Your task to perform on an android device: Go to calendar. Show me events next week Image 0: 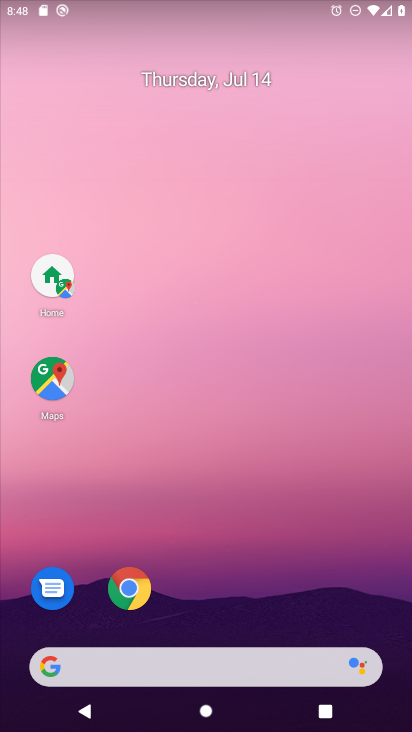
Step 0: drag from (47, 725) to (317, 17)
Your task to perform on an android device: Go to calendar. Show me events next week Image 1: 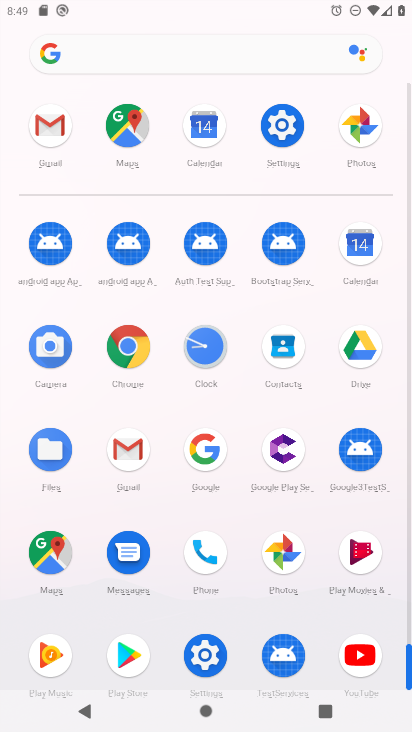
Step 1: click (354, 240)
Your task to perform on an android device: Go to calendar. Show me events next week Image 2: 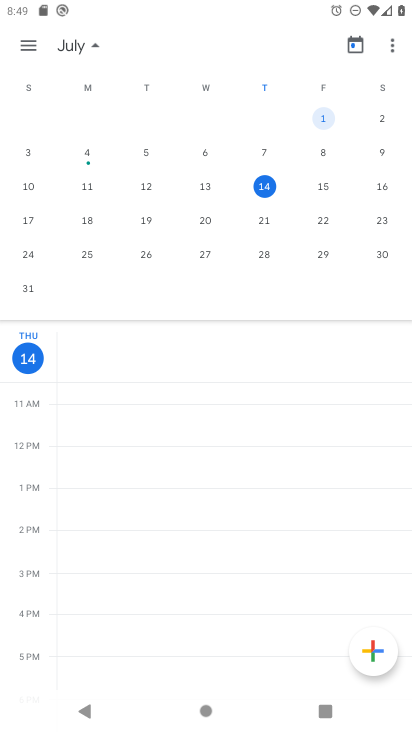
Step 2: click (24, 46)
Your task to perform on an android device: Go to calendar. Show me events next week Image 3: 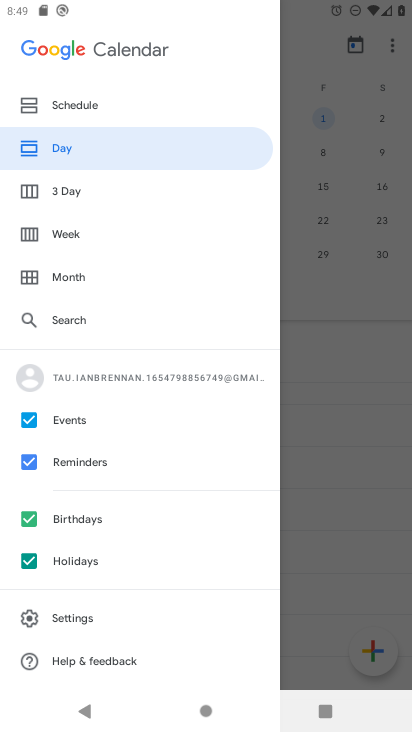
Step 3: click (364, 311)
Your task to perform on an android device: Go to calendar. Show me events next week Image 4: 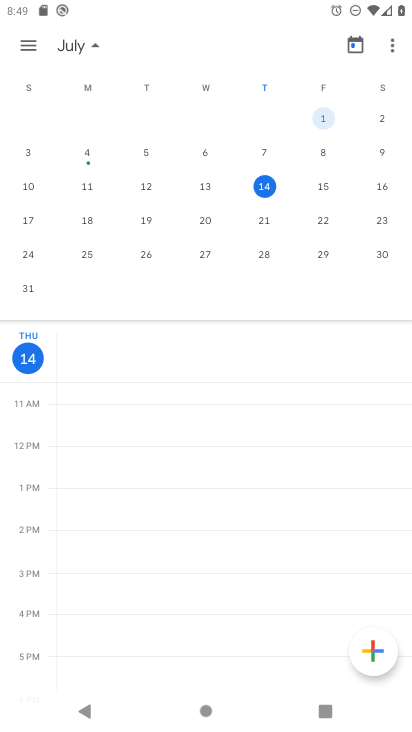
Step 4: task complete